Your task to perform on an android device: change the clock display to digital Image 0: 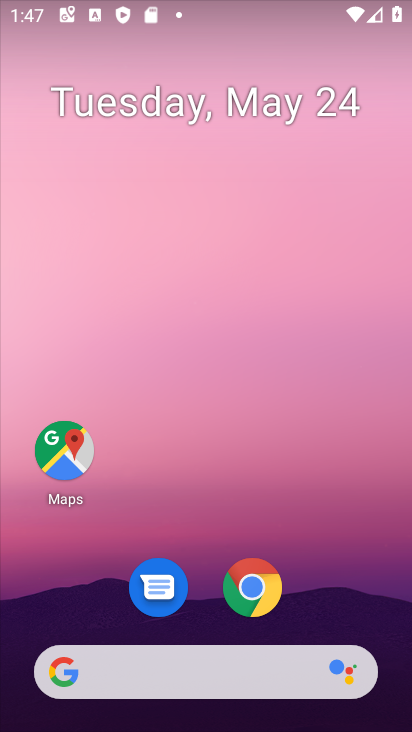
Step 0: drag from (251, 720) to (333, 5)
Your task to perform on an android device: change the clock display to digital Image 1: 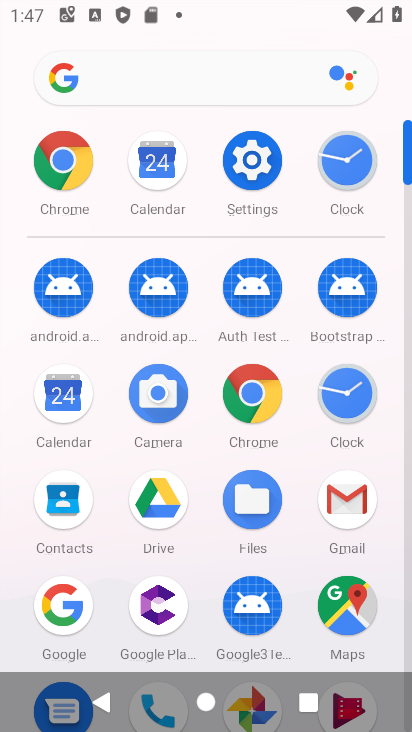
Step 1: click (358, 375)
Your task to perform on an android device: change the clock display to digital Image 2: 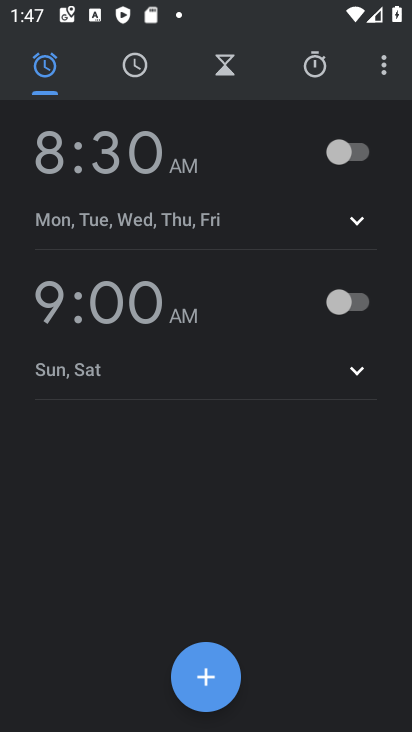
Step 2: click (385, 66)
Your task to perform on an android device: change the clock display to digital Image 3: 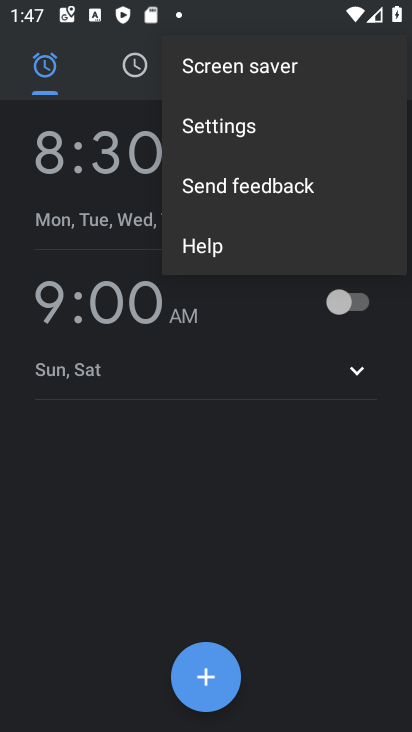
Step 3: click (275, 128)
Your task to perform on an android device: change the clock display to digital Image 4: 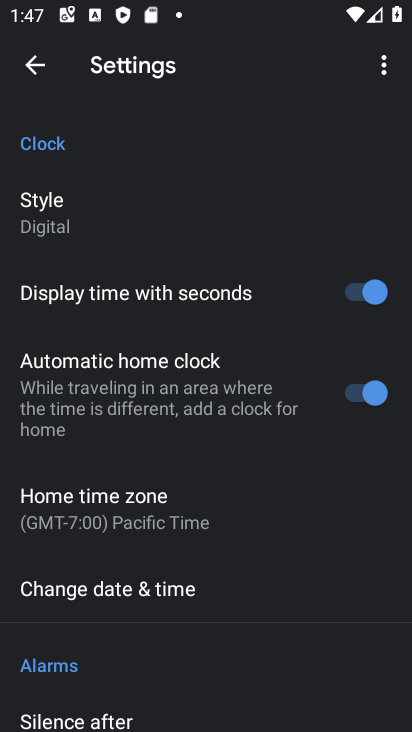
Step 4: click (91, 212)
Your task to perform on an android device: change the clock display to digital Image 5: 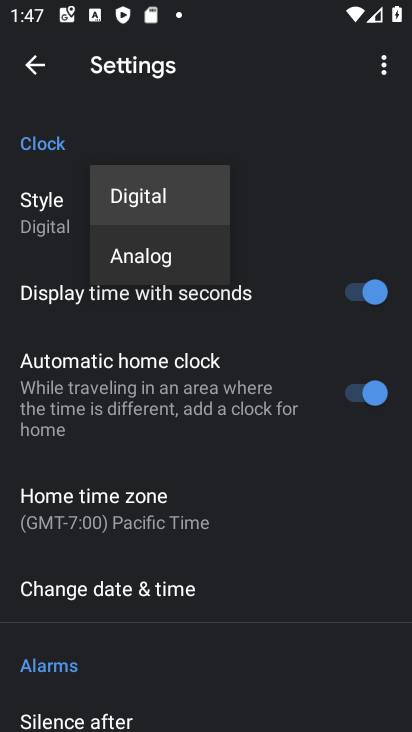
Step 5: click (148, 208)
Your task to perform on an android device: change the clock display to digital Image 6: 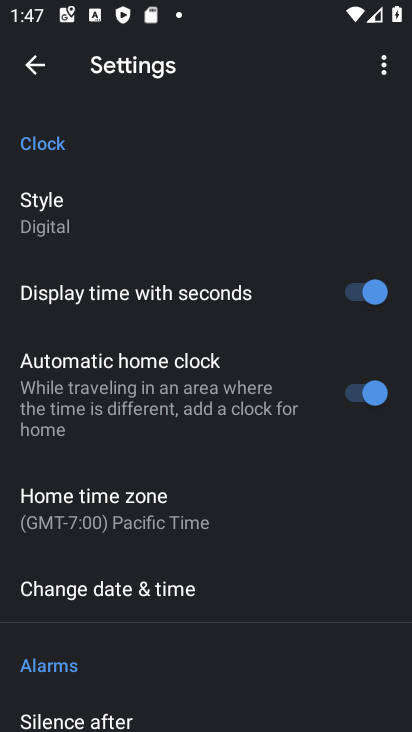
Step 6: task complete